Your task to perform on an android device: View the shopping cart on costco. Add "jbl charge 4" to the cart on costco, then select checkout. Image 0: 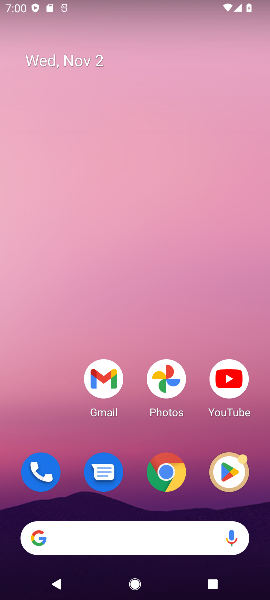
Step 0: click (170, 477)
Your task to perform on an android device: View the shopping cart on costco. Add "jbl charge 4" to the cart on costco, then select checkout. Image 1: 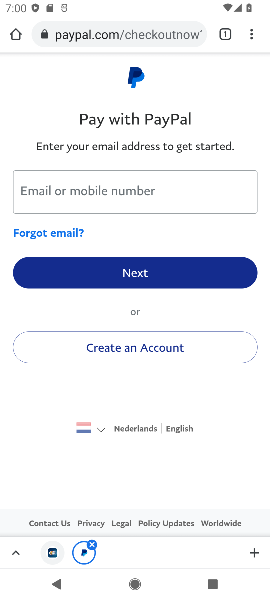
Step 1: click (114, 32)
Your task to perform on an android device: View the shopping cart on costco. Add "jbl charge 4" to the cart on costco, then select checkout. Image 2: 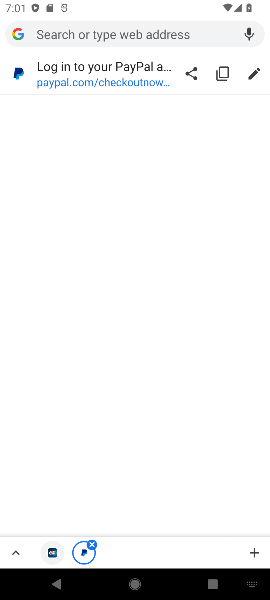
Step 2: type "costco"
Your task to perform on an android device: View the shopping cart on costco. Add "jbl charge 4" to the cart on costco, then select checkout. Image 3: 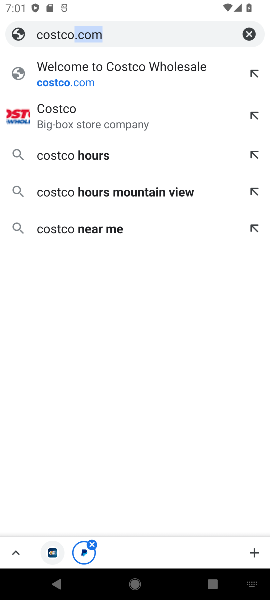
Step 3: click (75, 74)
Your task to perform on an android device: View the shopping cart on costco. Add "jbl charge 4" to the cart on costco, then select checkout. Image 4: 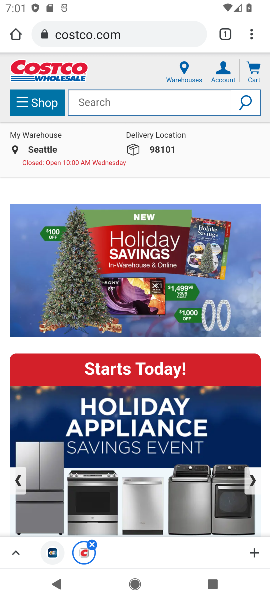
Step 4: click (130, 106)
Your task to perform on an android device: View the shopping cart on costco. Add "jbl charge 4" to the cart on costco, then select checkout. Image 5: 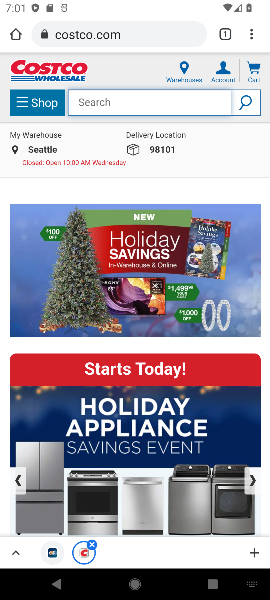
Step 5: type "jbl charge 4"
Your task to perform on an android device: View the shopping cart on costco. Add "jbl charge 4" to the cart on costco, then select checkout. Image 6: 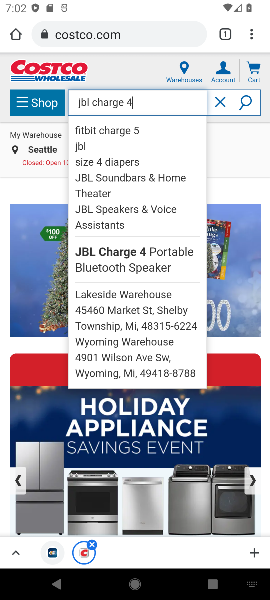
Step 6: click (105, 134)
Your task to perform on an android device: View the shopping cart on costco. Add "jbl charge 4" to the cart on costco, then select checkout. Image 7: 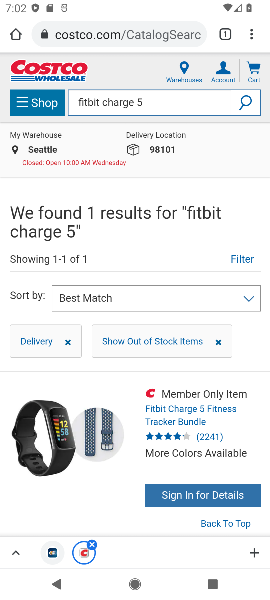
Step 7: click (198, 494)
Your task to perform on an android device: View the shopping cart on costco. Add "jbl charge 4" to the cart on costco, then select checkout. Image 8: 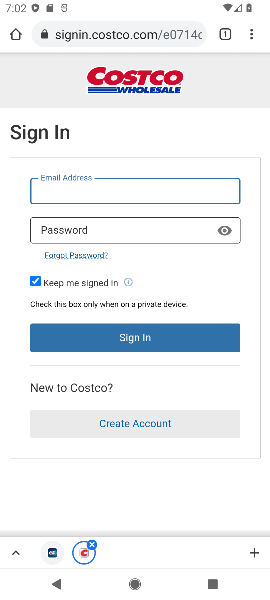
Step 8: task complete